Your task to perform on an android device: empty trash in google photos Image 0: 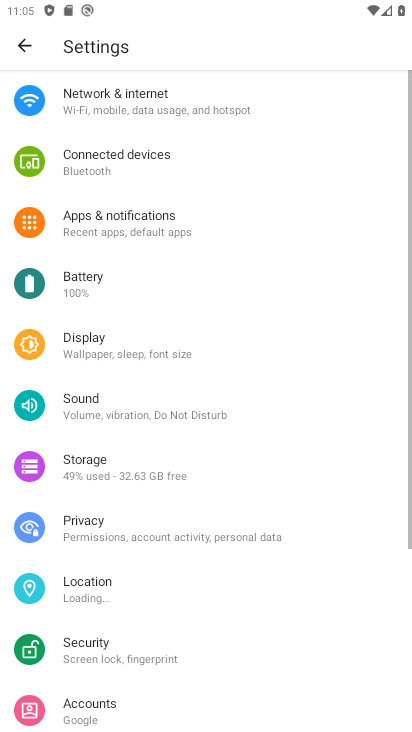
Step 0: click (300, 218)
Your task to perform on an android device: empty trash in google photos Image 1: 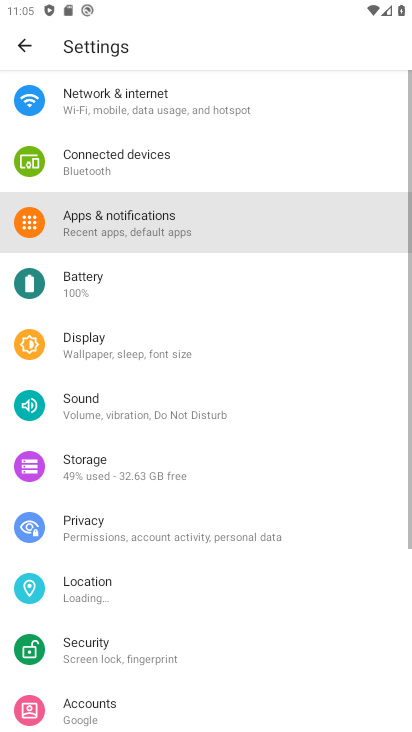
Step 1: click (30, 45)
Your task to perform on an android device: empty trash in google photos Image 2: 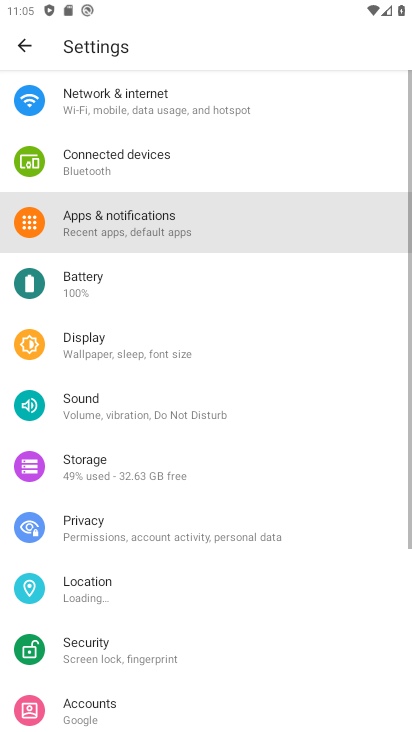
Step 2: click (30, 45)
Your task to perform on an android device: empty trash in google photos Image 3: 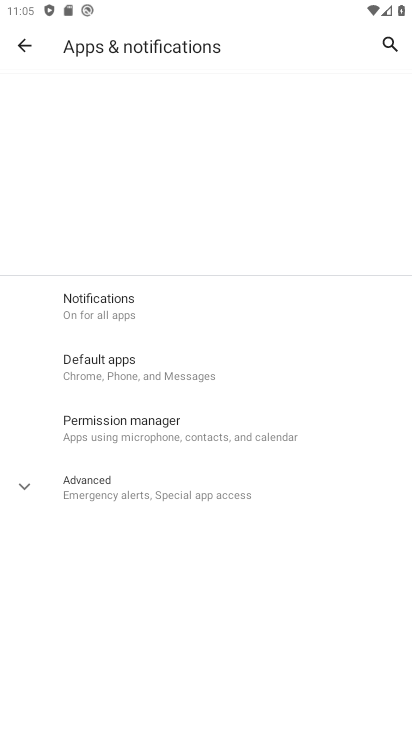
Step 3: click (23, 46)
Your task to perform on an android device: empty trash in google photos Image 4: 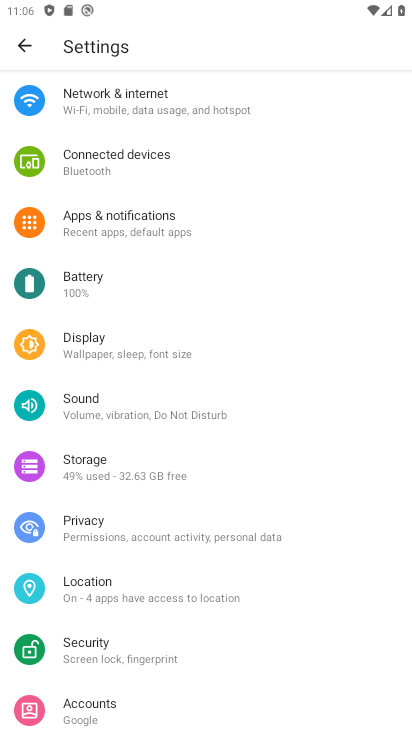
Step 4: press back button
Your task to perform on an android device: empty trash in google photos Image 5: 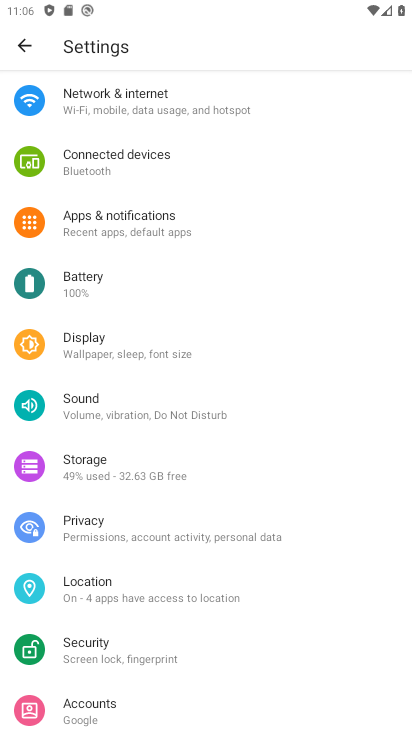
Step 5: press back button
Your task to perform on an android device: empty trash in google photos Image 6: 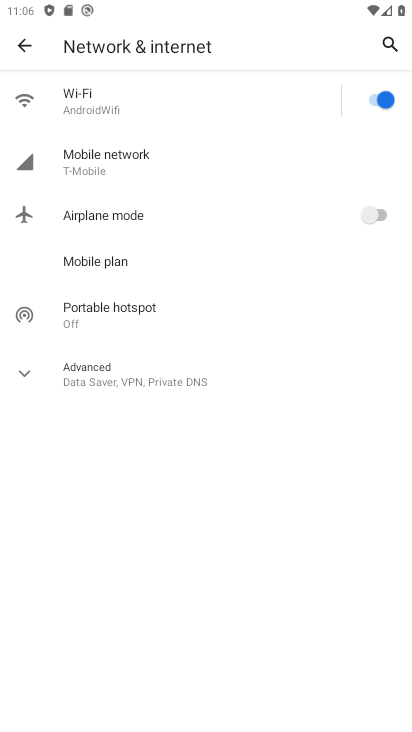
Step 6: click (22, 42)
Your task to perform on an android device: empty trash in google photos Image 7: 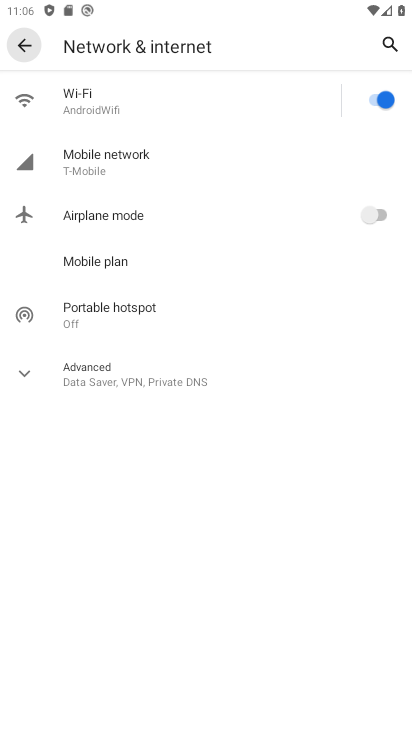
Step 7: click (21, 41)
Your task to perform on an android device: empty trash in google photos Image 8: 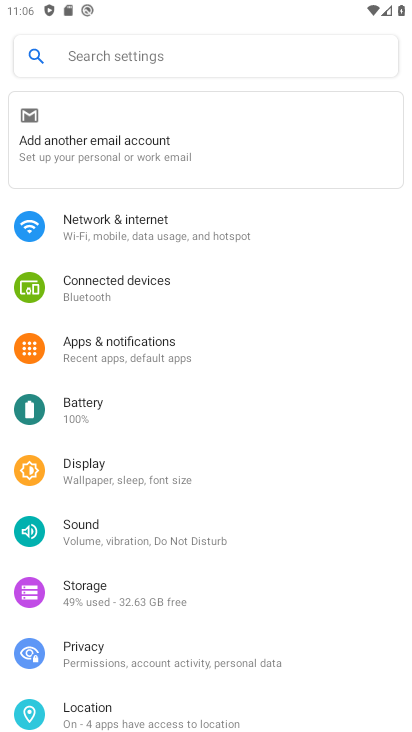
Step 8: press back button
Your task to perform on an android device: empty trash in google photos Image 9: 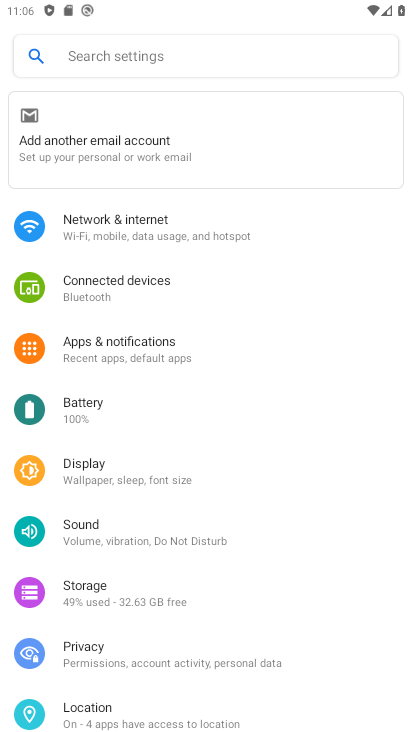
Step 9: press back button
Your task to perform on an android device: empty trash in google photos Image 10: 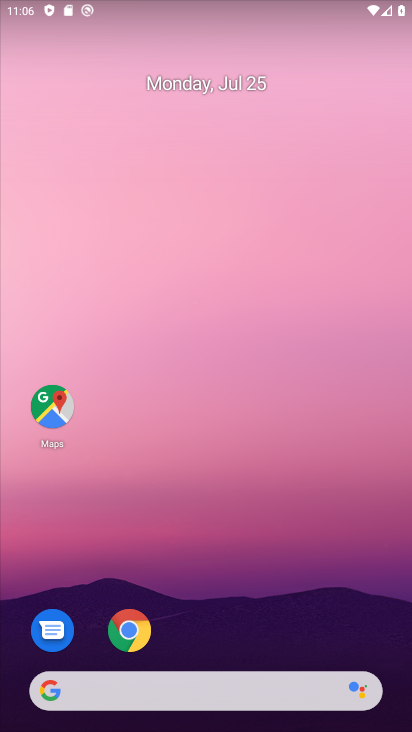
Step 10: drag from (253, 621) to (187, 156)
Your task to perform on an android device: empty trash in google photos Image 11: 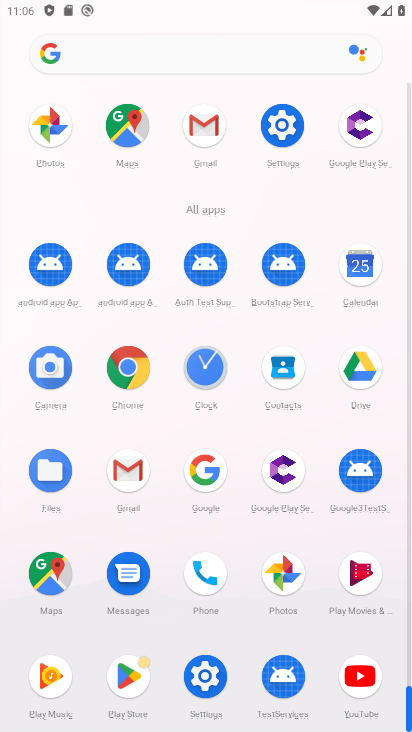
Step 11: click (274, 581)
Your task to perform on an android device: empty trash in google photos Image 12: 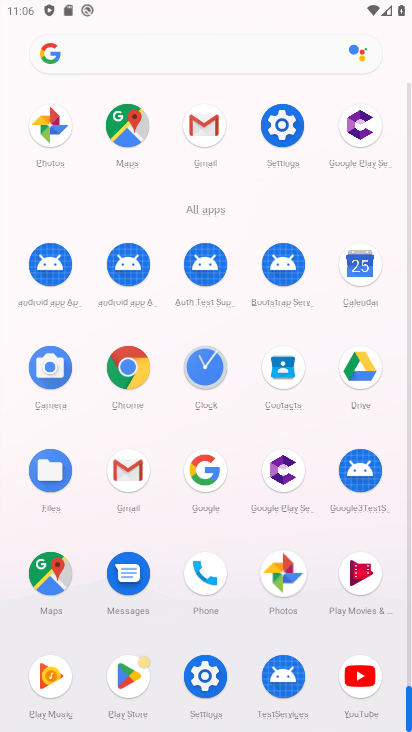
Step 12: click (275, 580)
Your task to perform on an android device: empty trash in google photos Image 13: 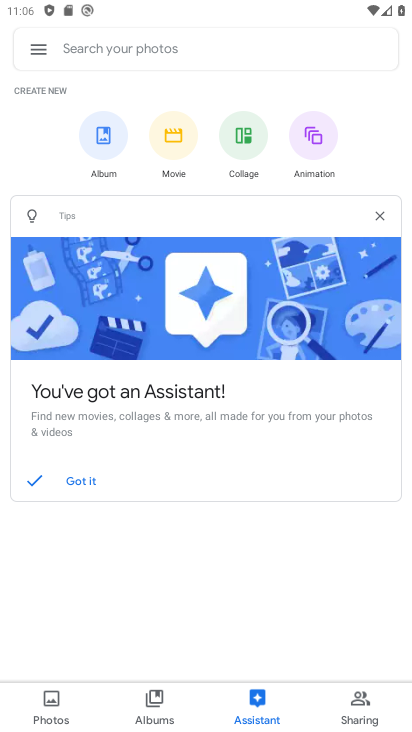
Step 13: click (47, 43)
Your task to perform on an android device: empty trash in google photos Image 14: 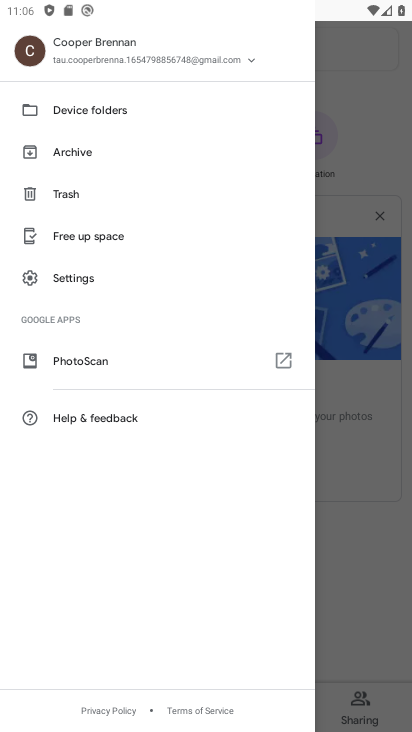
Step 14: click (52, 193)
Your task to perform on an android device: empty trash in google photos Image 15: 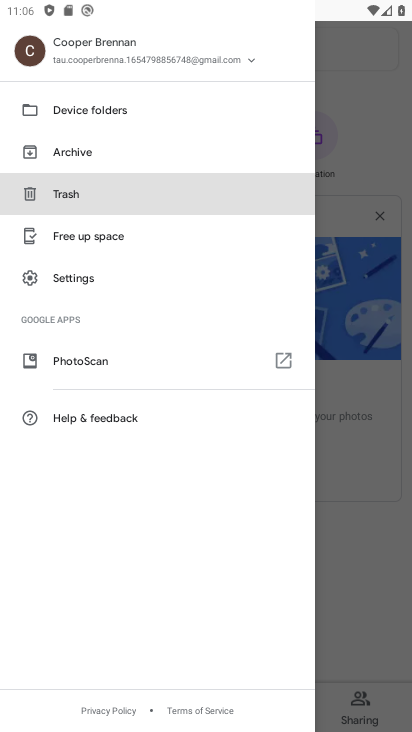
Step 15: click (54, 199)
Your task to perform on an android device: empty trash in google photos Image 16: 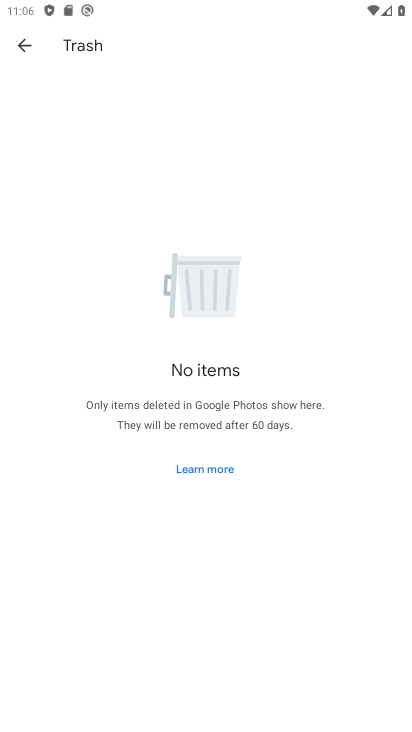
Step 16: task complete